Your task to perform on an android device: Go to settings Image 0: 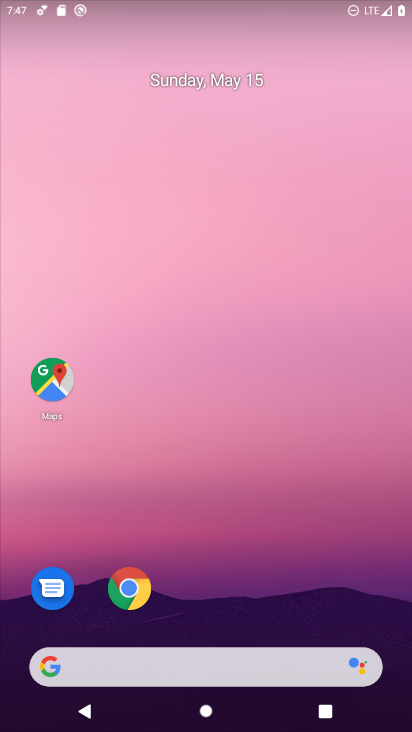
Step 0: drag from (314, 609) to (236, 40)
Your task to perform on an android device: Go to settings Image 1: 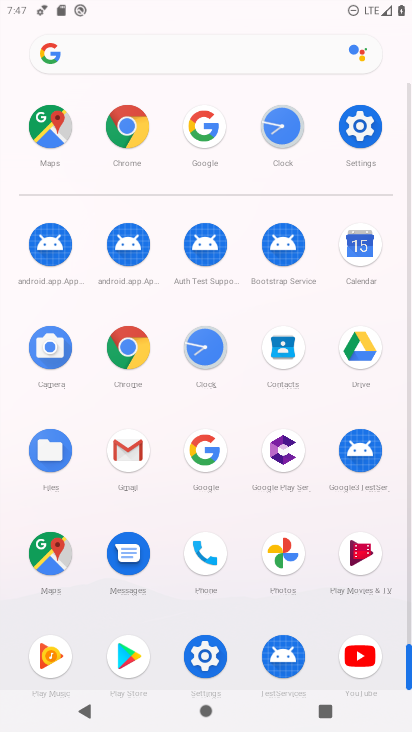
Step 1: click (204, 650)
Your task to perform on an android device: Go to settings Image 2: 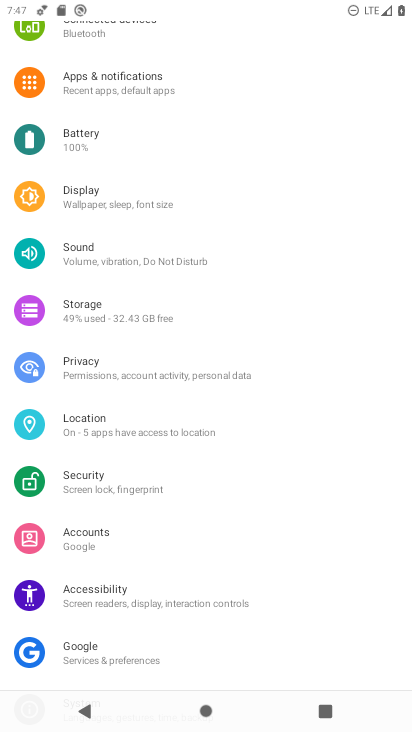
Step 2: task complete